Your task to perform on an android device: toggle translation in the chrome app Image 0: 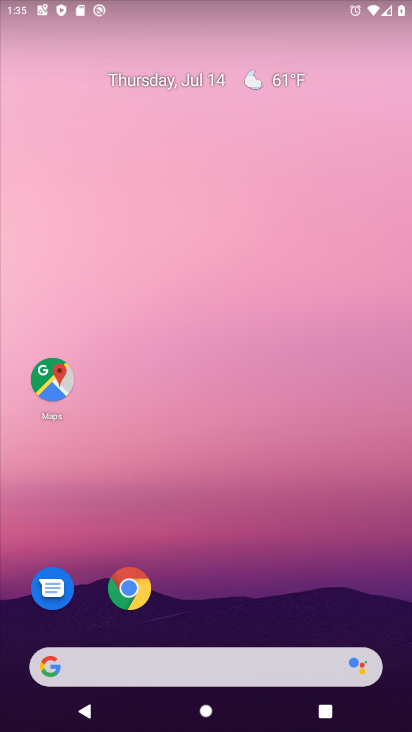
Step 0: click (135, 575)
Your task to perform on an android device: toggle translation in the chrome app Image 1: 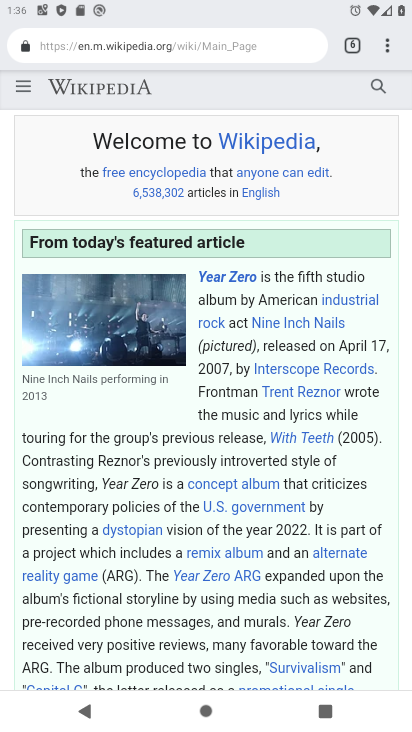
Step 1: click (387, 44)
Your task to perform on an android device: toggle translation in the chrome app Image 2: 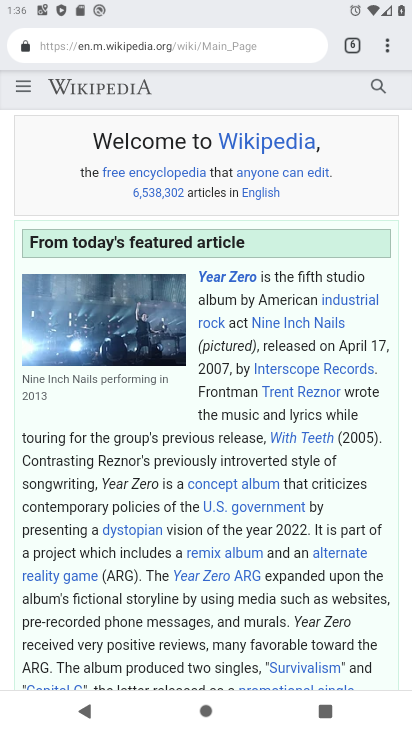
Step 2: click (387, 44)
Your task to perform on an android device: toggle translation in the chrome app Image 3: 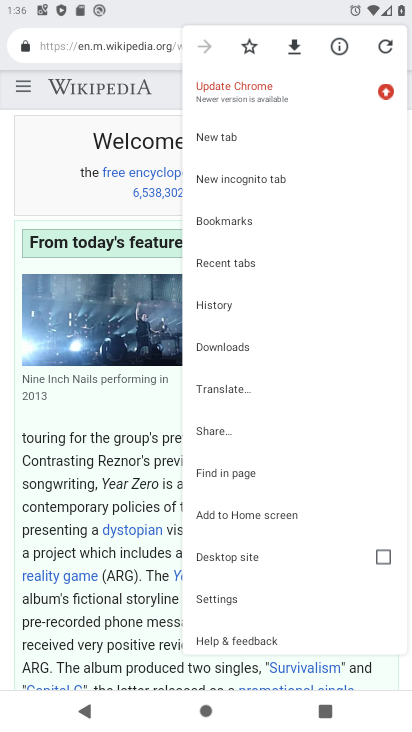
Step 3: click (219, 597)
Your task to perform on an android device: toggle translation in the chrome app Image 4: 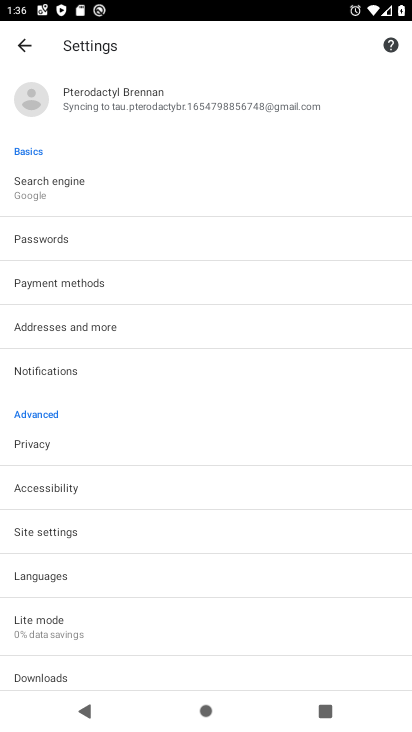
Step 4: click (69, 572)
Your task to perform on an android device: toggle translation in the chrome app Image 5: 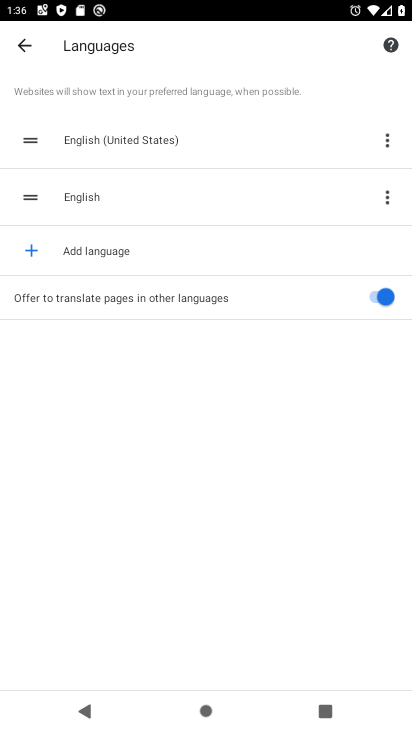
Step 5: click (362, 289)
Your task to perform on an android device: toggle translation in the chrome app Image 6: 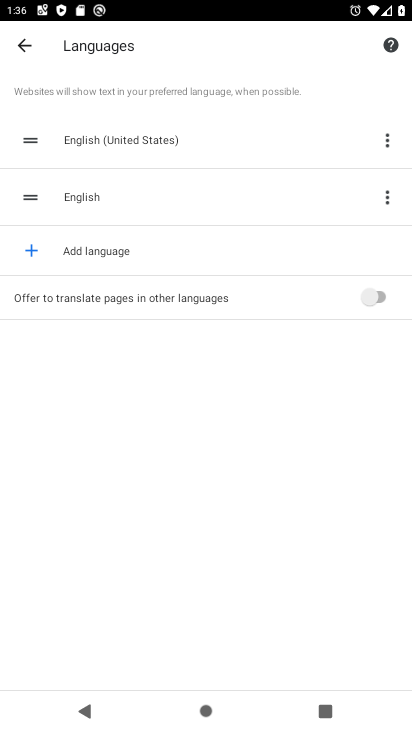
Step 6: task complete